Your task to perform on an android device: Open battery settings Image 0: 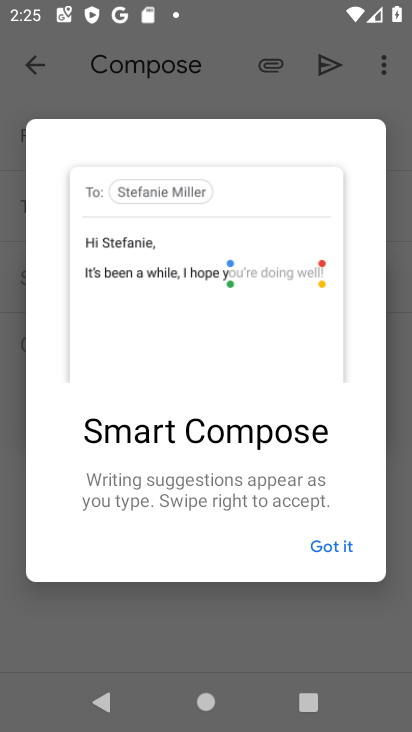
Step 0: drag from (250, 249) to (271, 180)
Your task to perform on an android device: Open battery settings Image 1: 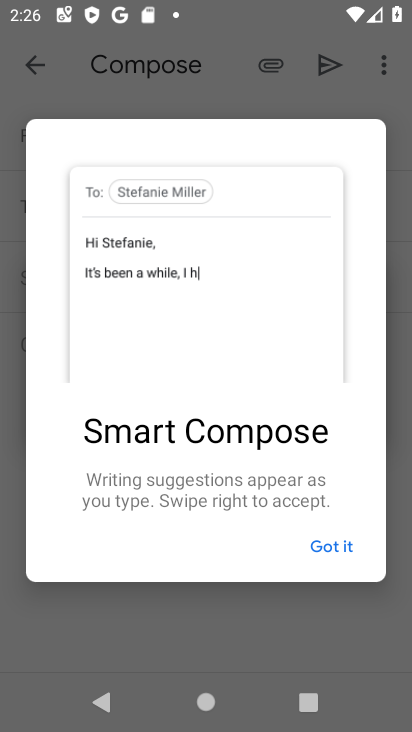
Step 1: press home button
Your task to perform on an android device: Open battery settings Image 2: 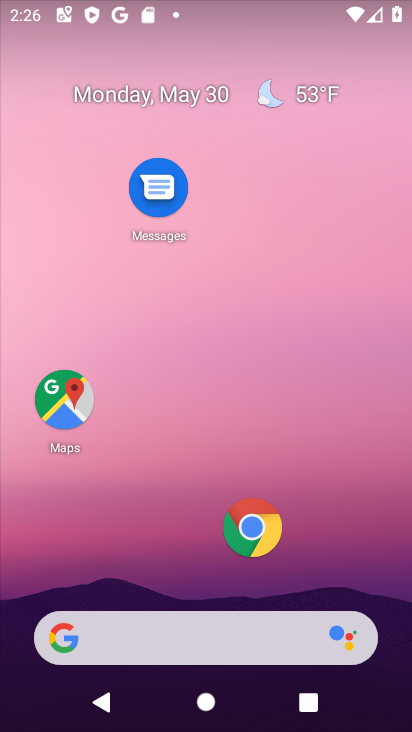
Step 2: drag from (198, 522) to (288, 193)
Your task to perform on an android device: Open battery settings Image 3: 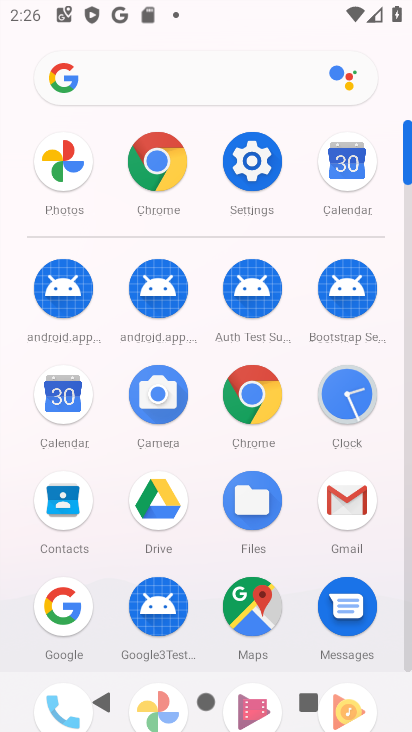
Step 3: drag from (206, 251) to (210, 51)
Your task to perform on an android device: Open battery settings Image 4: 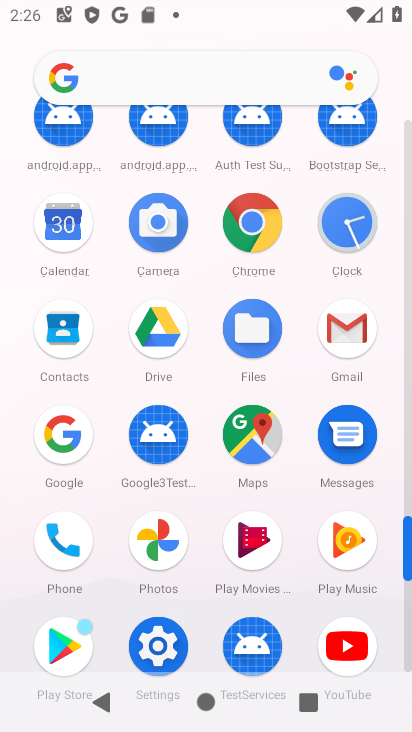
Step 4: click (167, 651)
Your task to perform on an android device: Open battery settings Image 5: 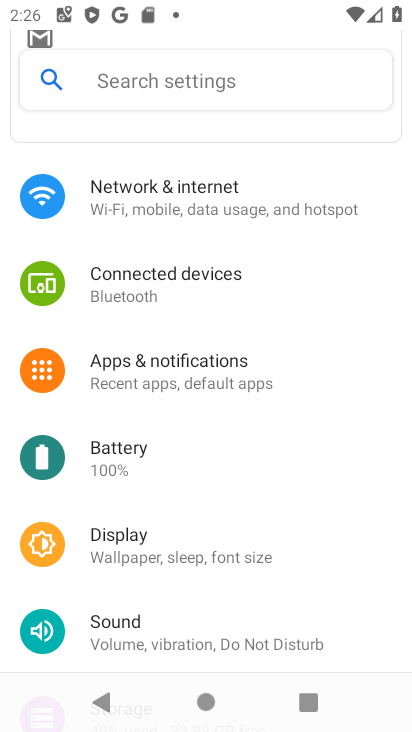
Step 5: drag from (151, 559) to (202, 302)
Your task to perform on an android device: Open battery settings Image 6: 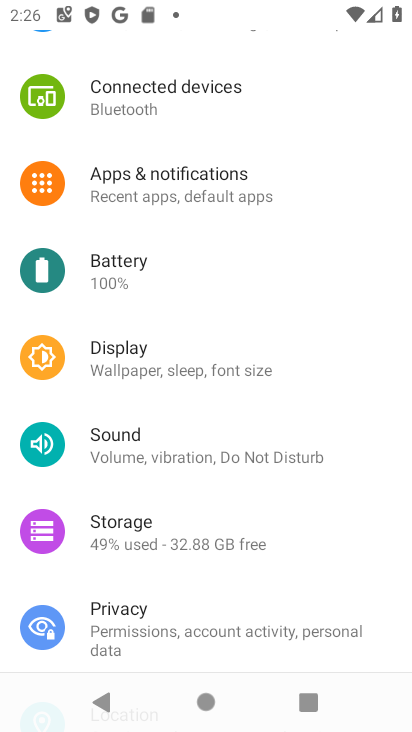
Step 6: click (161, 284)
Your task to perform on an android device: Open battery settings Image 7: 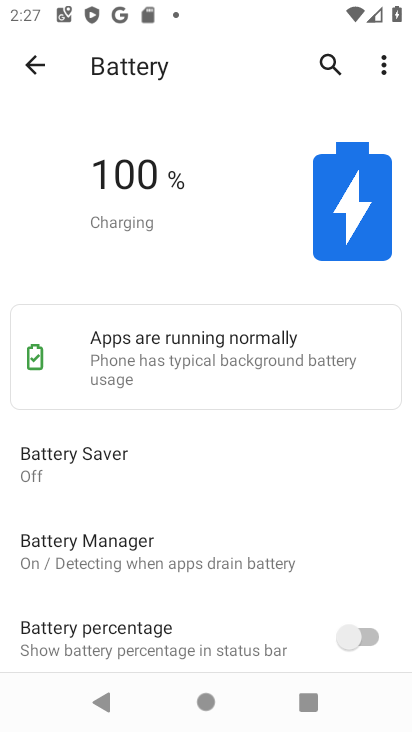
Step 7: task complete